Your task to perform on an android device: Google the capital of Venezuela Image 0: 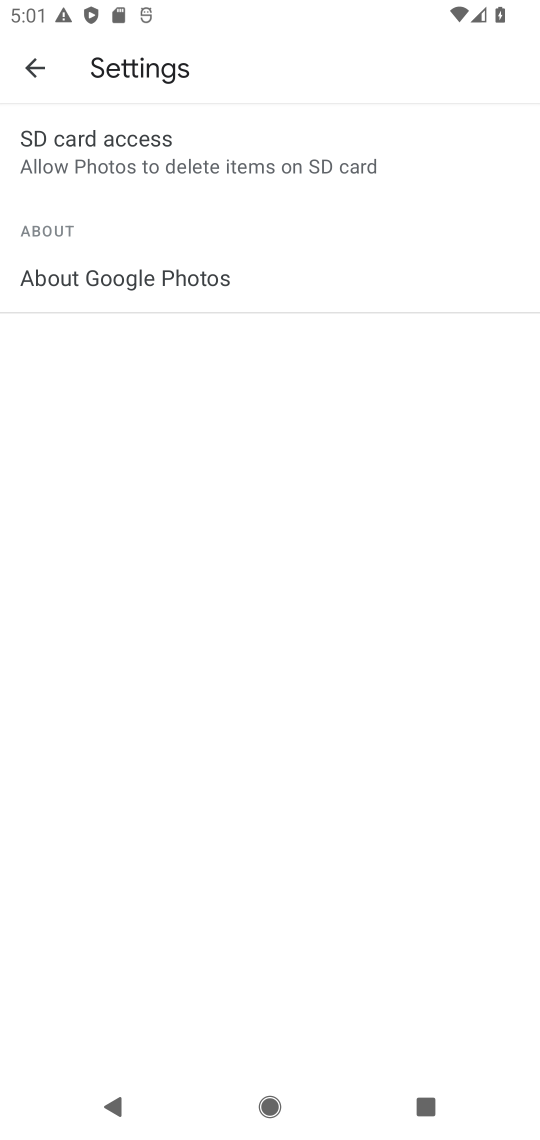
Step 0: press home button
Your task to perform on an android device: Google the capital of Venezuela Image 1: 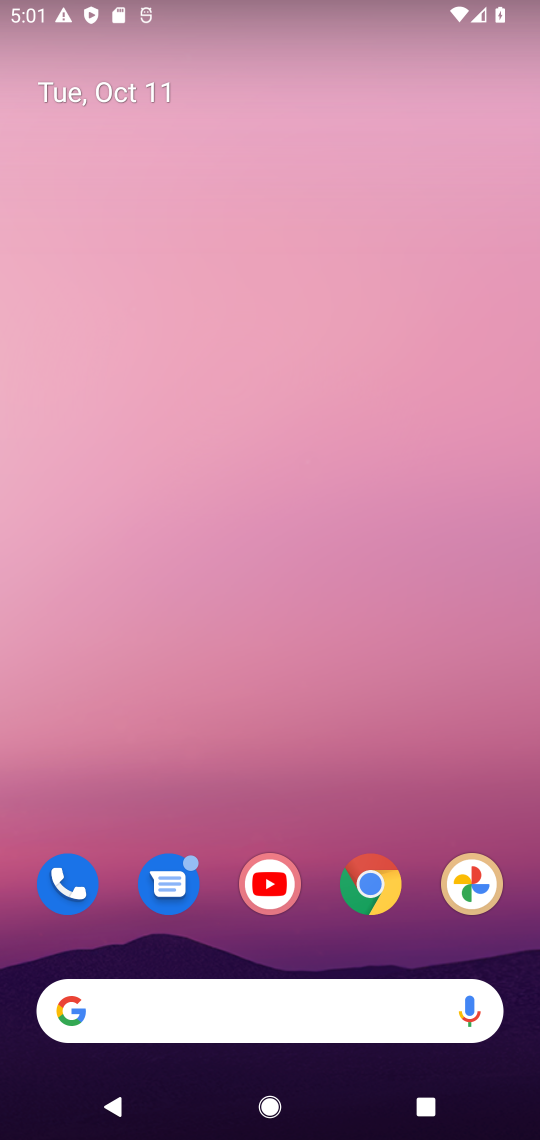
Step 1: drag from (319, 899) to (312, 128)
Your task to perform on an android device: Google the capital of Venezuela Image 2: 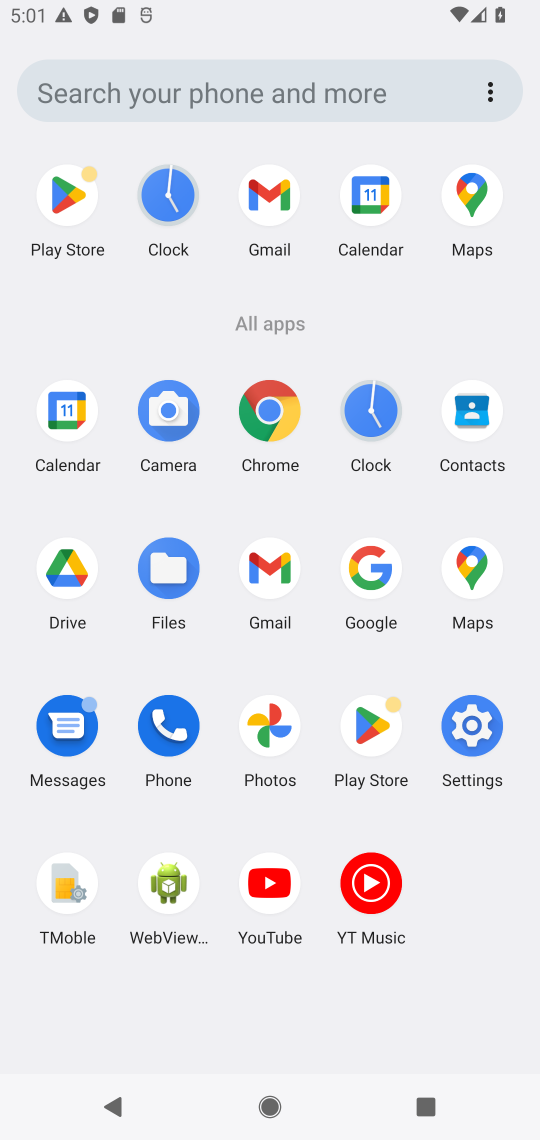
Step 2: click (276, 407)
Your task to perform on an android device: Google the capital of Venezuela Image 3: 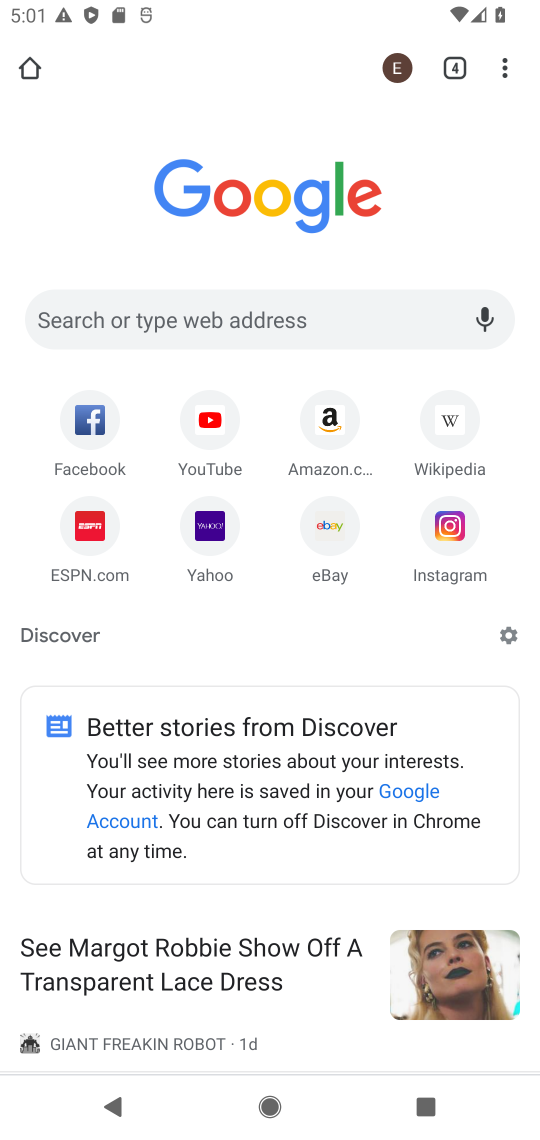
Step 3: click (207, 317)
Your task to perform on an android device: Google the capital of Venezuela Image 4: 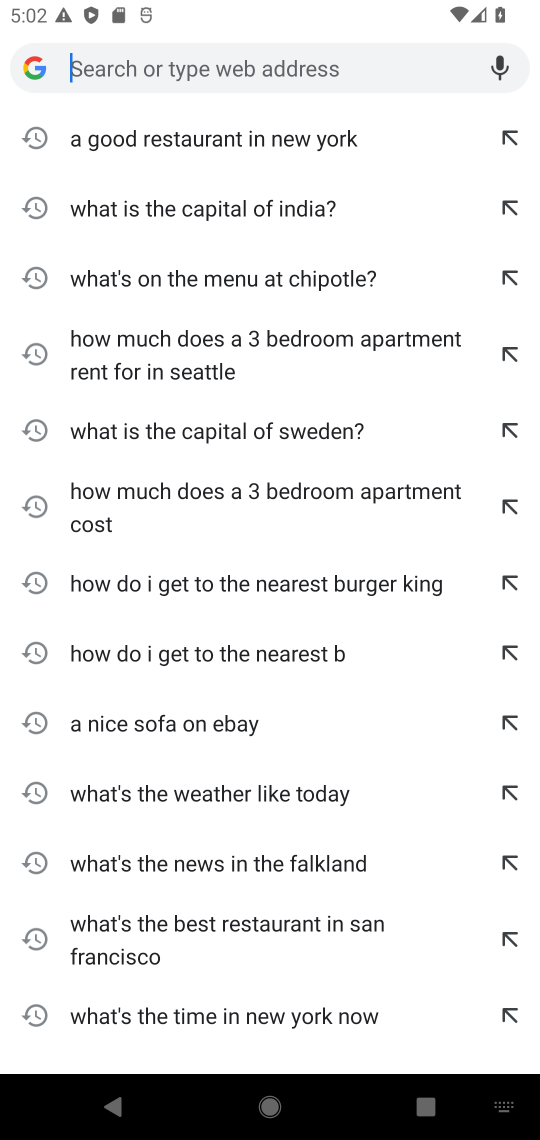
Step 4: type "Google the capital of Venezuela"
Your task to perform on an android device: Google the capital of Venezuela Image 5: 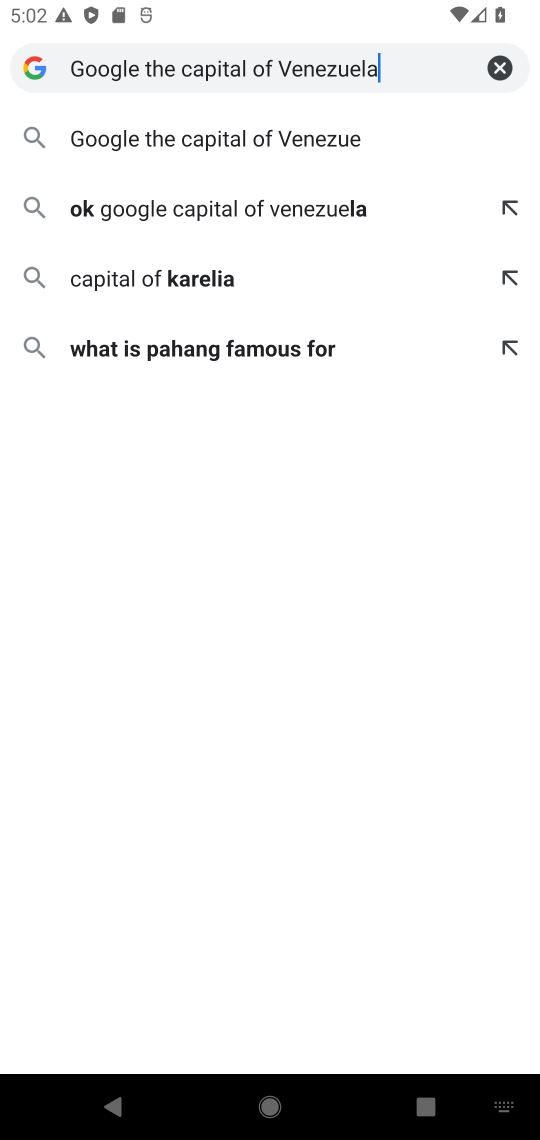
Step 5: type ""
Your task to perform on an android device: Google the capital of Venezuela Image 6: 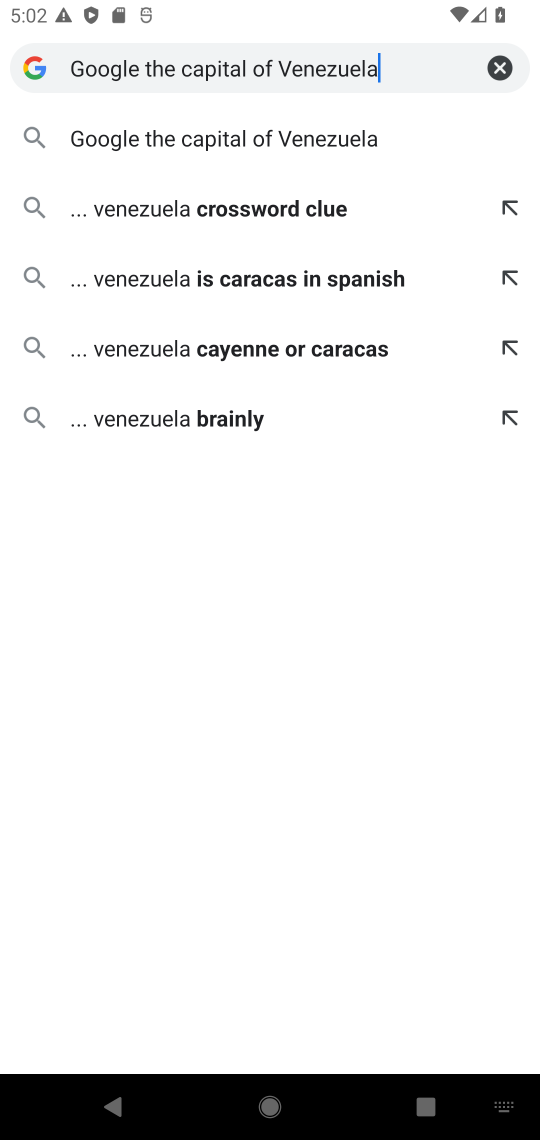
Step 6: click (249, 147)
Your task to perform on an android device: Google the capital of Venezuela Image 7: 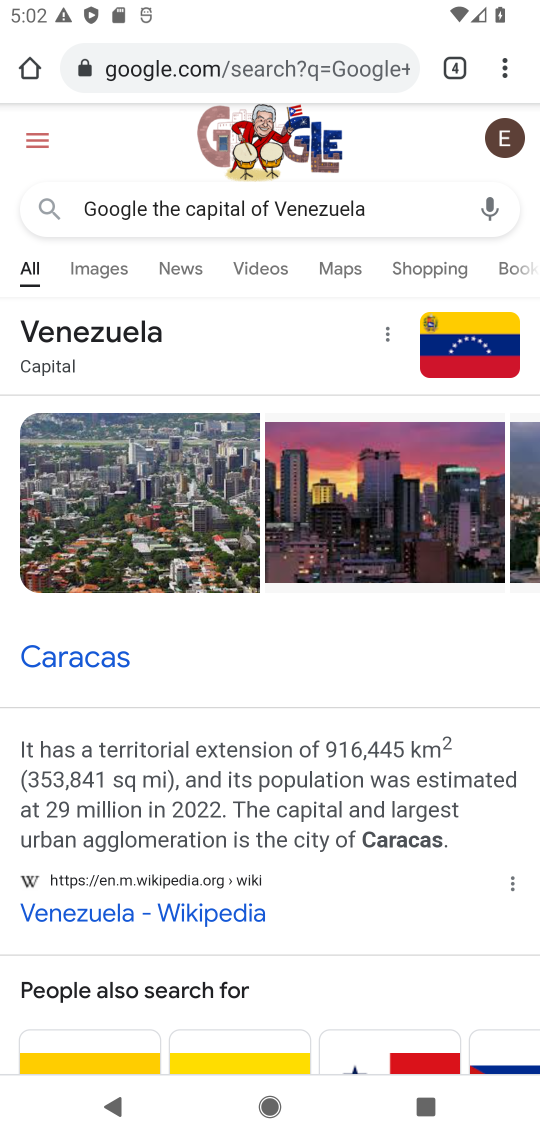
Step 7: task complete